Your task to perform on an android device: open device folders in google photos Image 0: 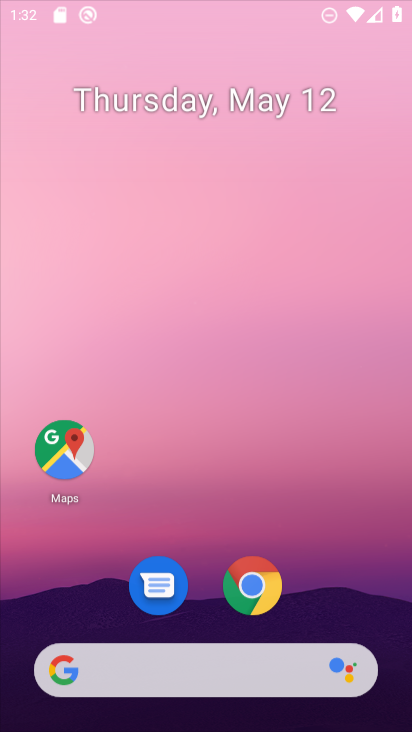
Step 0: click (211, 87)
Your task to perform on an android device: open device folders in google photos Image 1: 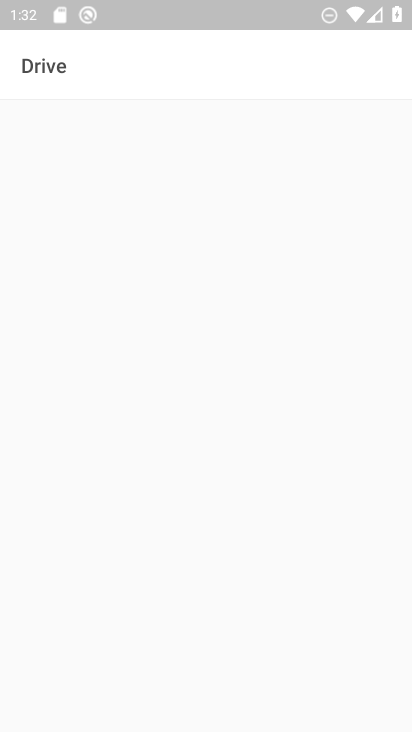
Step 1: press home button
Your task to perform on an android device: open device folders in google photos Image 2: 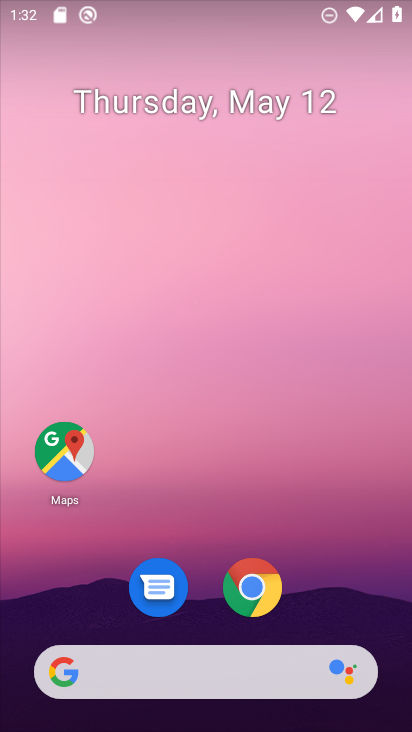
Step 2: drag from (330, 598) to (245, 45)
Your task to perform on an android device: open device folders in google photos Image 3: 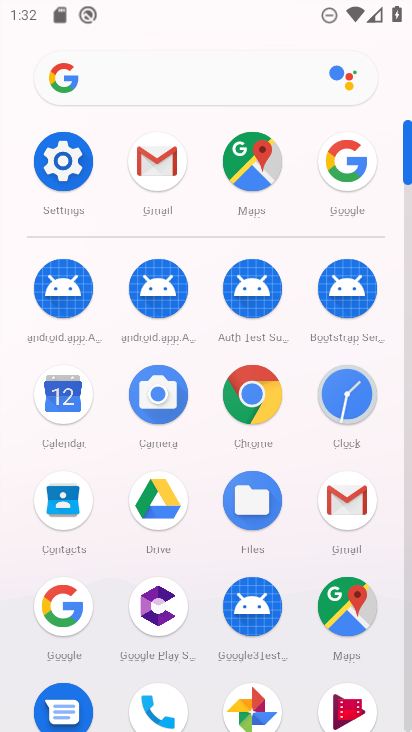
Step 3: drag from (299, 613) to (264, 269)
Your task to perform on an android device: open device folders in google photos Image 4: 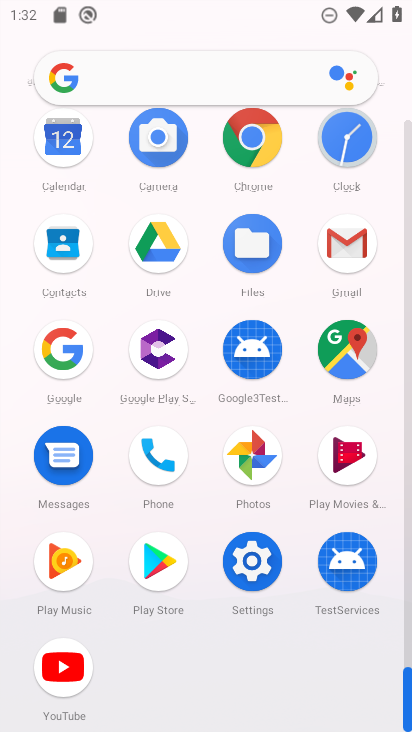
Step 4: click (248, 454)
Your task to perform on an android device: open device folders in google photos Image 5: 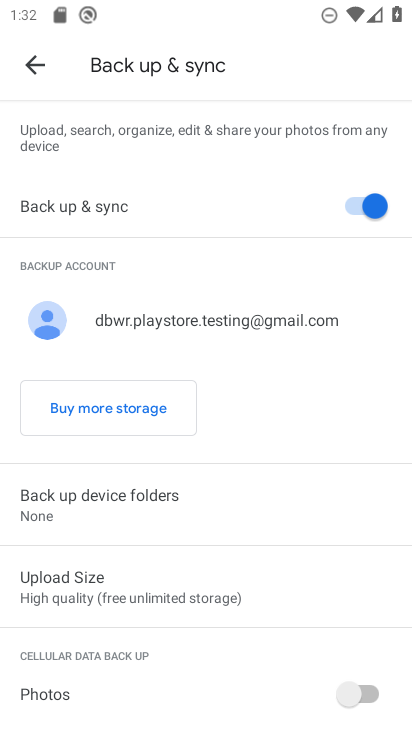
Step 5: press back button
Your task to perform on an android device: open device folders in google photos Image 6: 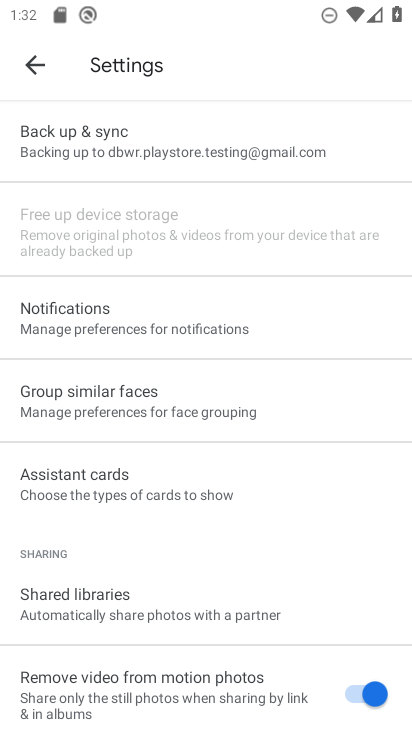
Step 6: press back button
Your task to perform on an android device: open device folders in google photos Image 7: 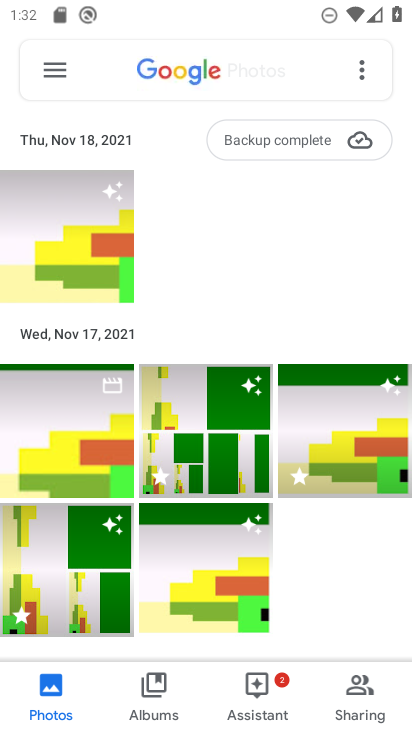
Step 7: click (55, 64)
Your task to perform on an android device: open device folders in google photos Image 8: 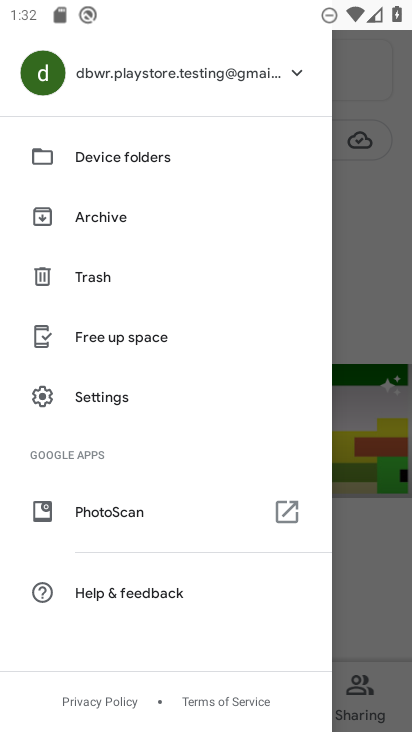
Step 8: click (142, 153)
Your task to perform on an android device: open device folders in google photos Image 9: 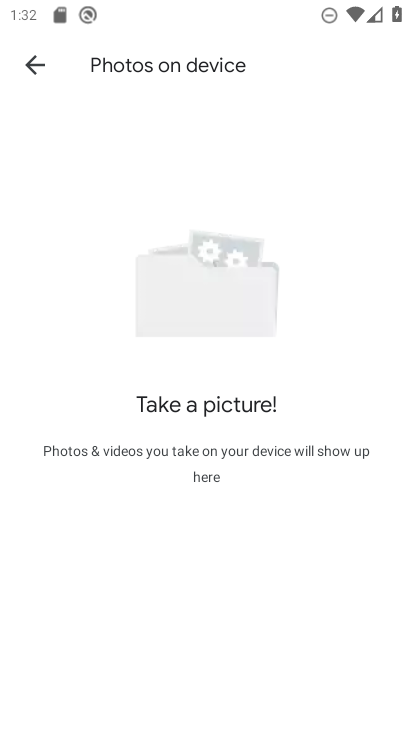
Step 9: task complete